Your task to perform on an android device: Go to calendar. Show me events next week Image 0: 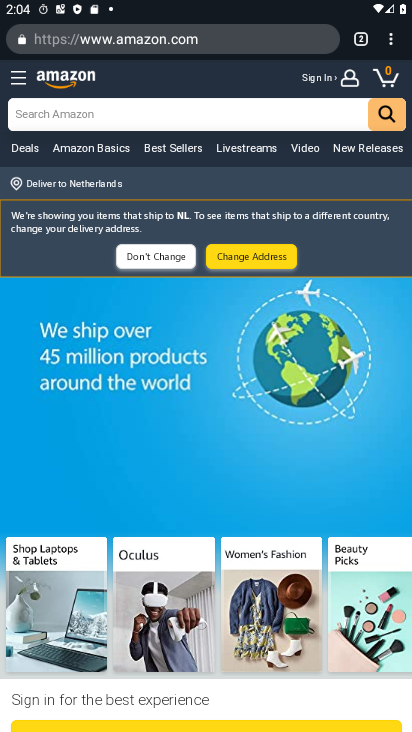
Step 0: click (131, 641)
Your task to perform on an android device: Go to calendar. Show me events next week Image 1: 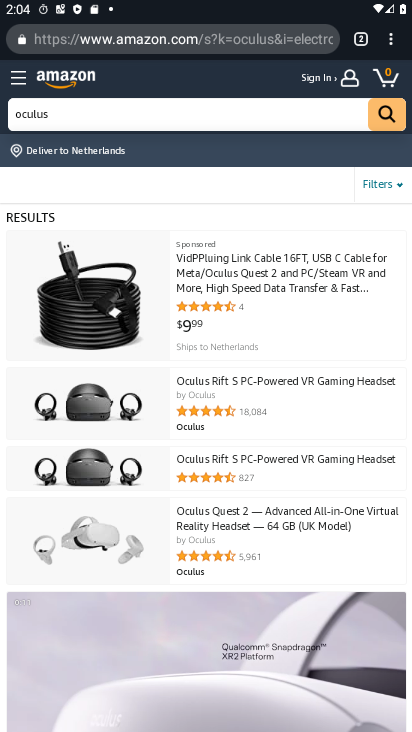
Step 1: press home button
Your task to perform on an android device: Go to calendar. Show me events next week Image 2: 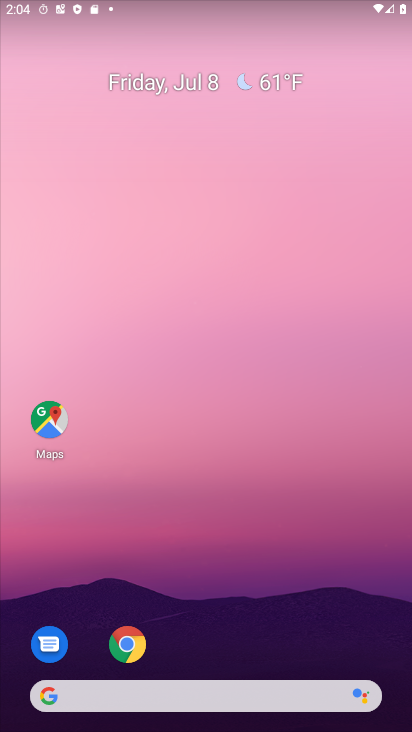
Step 2: drag from (235, 499) to (242, 154)
Your task to perform on an android device: Go to calendar. Show me events next week Image 3: 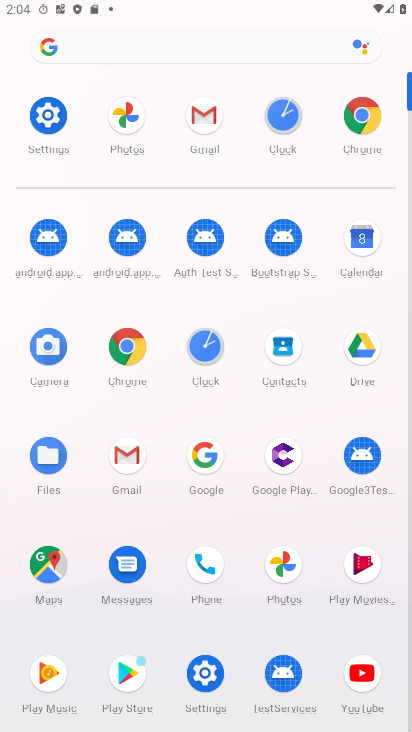
Step 3: click (356, 266)
Your task to perform on an android device: Go to calendar. Show me events next week Image 4: 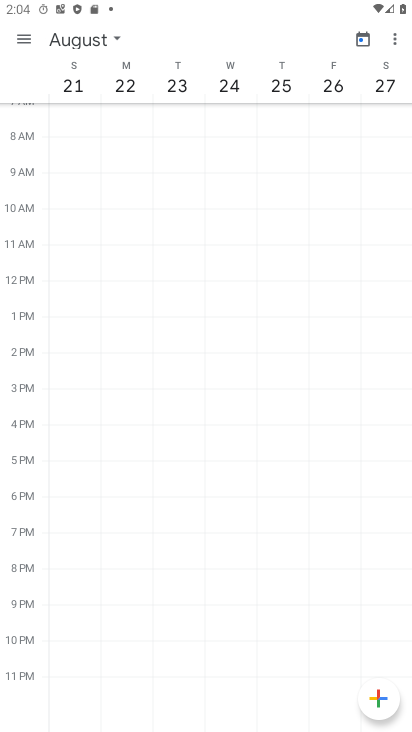
Step 4: click (78, 43)
Your task to perform on an android device: Go to calendar. Show me events next week Image 5: 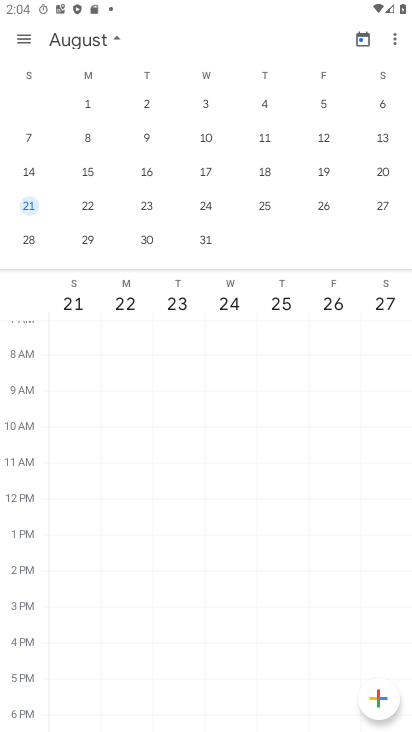
Step 5: drag from (353, 124) to (408, 175)
Your task to perform on an android device: Go to calendar. Show me events next week Image 6: 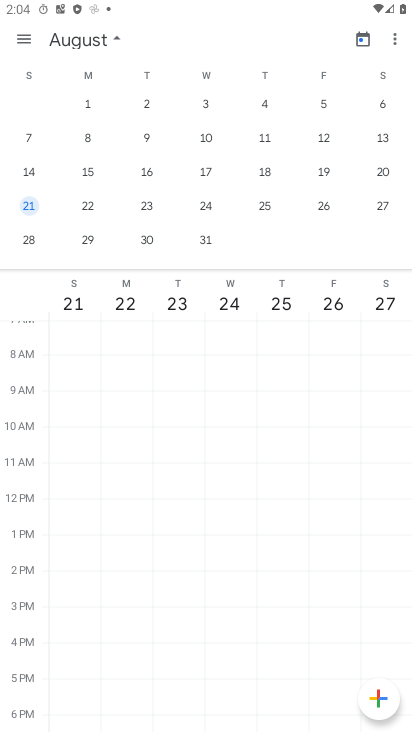
Step 6: click (366, 164)
Your task to perform on an android device: Go to calendar. Show me events next week Image 7: 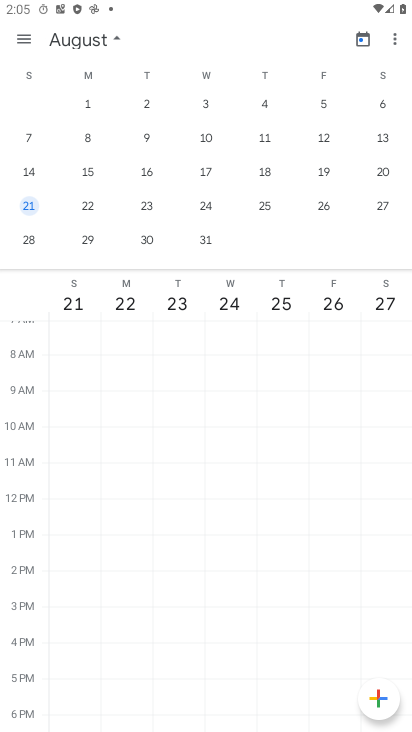
Step 7: drag from (73, 179) to (387, 139)
Your task to perform on an android device: Go to calendar. Show me events next week Image 8: 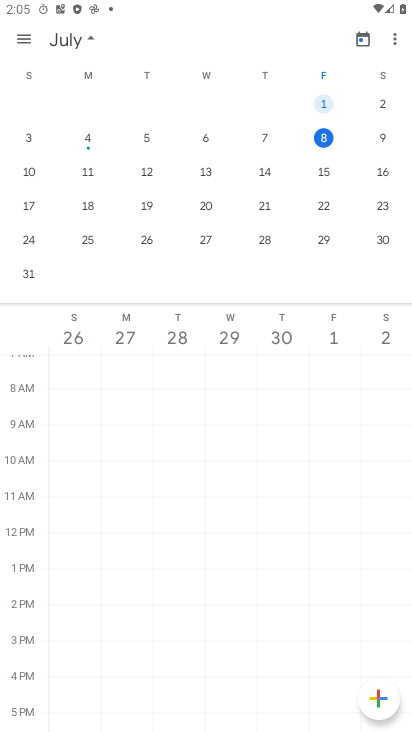
Step 8: click (26, 179)
Your task to perform on an android device: Go to calendar. Show me events next week Image 9: 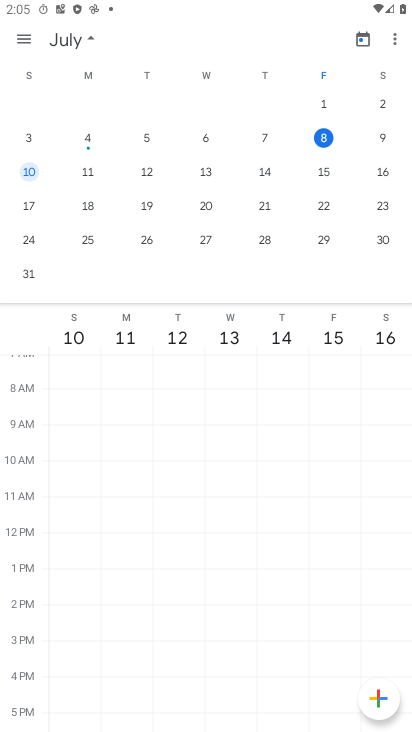
Step 9: click (219, 118)
Your task to perform on an android device: Go to calendar. Show me events next week Image 10: 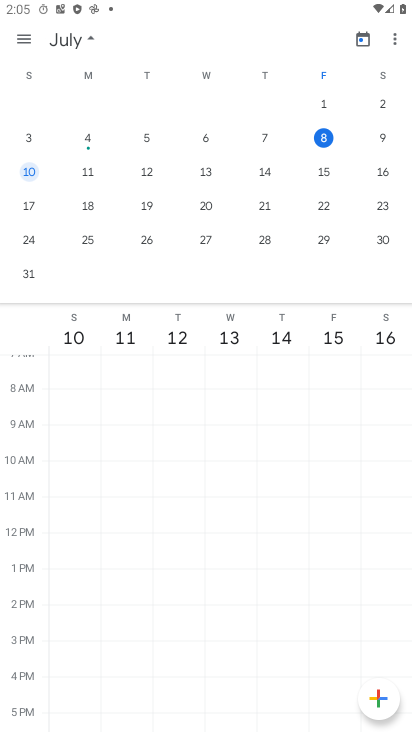
Step 10: task complete